Your task to perform on an android device: star an email in the gmail app Image 0: 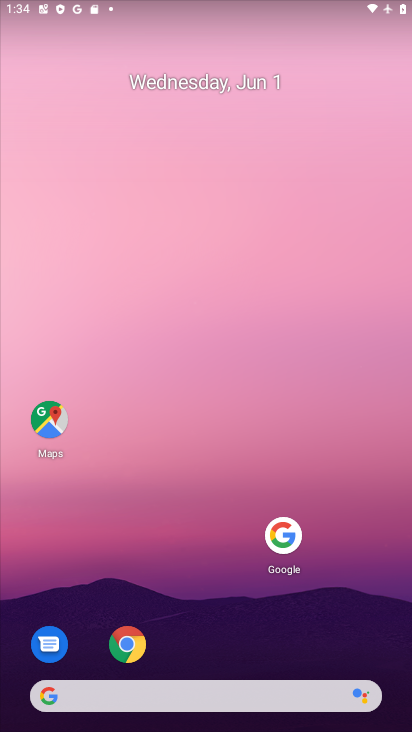
Step 0: press home button
Your task to perform on an android device: star an email in the gmail app Image 1: 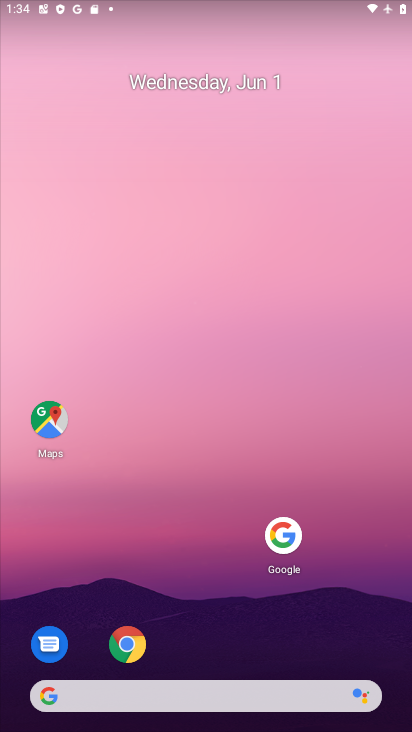
Step 1: drag from (130, 696) to (286, 188)
Your task to perform on an android device: star an email in the gmail app Image 2: 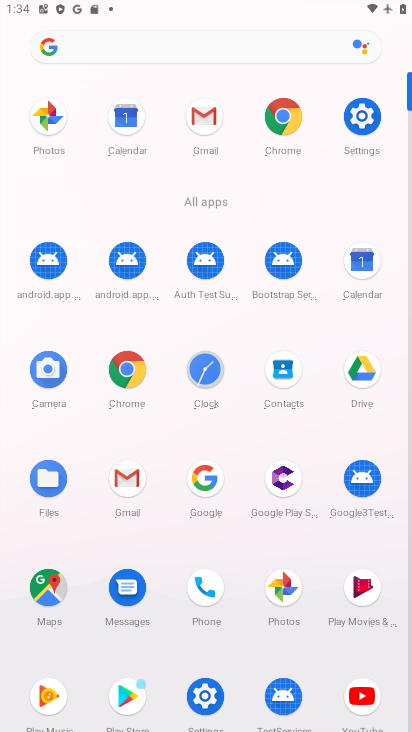
Step 2: click (200, 120)
Your task to perform on an android device: star an email in the gmail app Image 3: 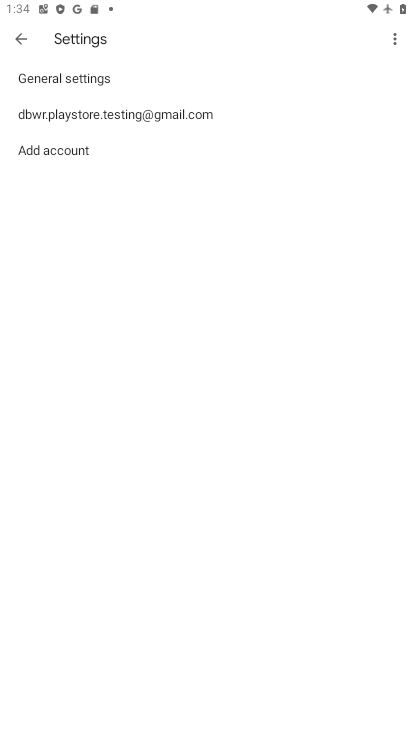
Step 3: click (23, 38)
Your task to perform on an android device: star an email in the gmail app Image 4: 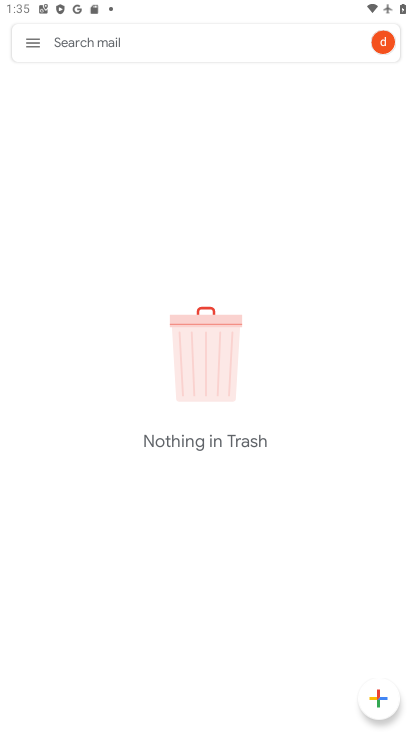
Step 4: click (32, 41)
Your task to perform on an android device: star an email in the gmail app Image 5: 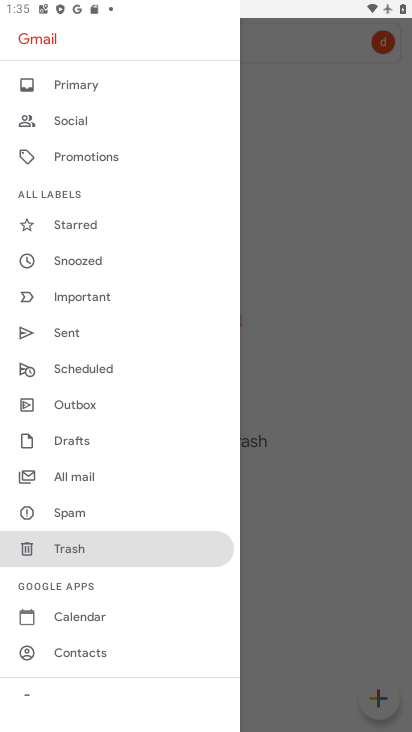
Step 5: click (84, 483)
Your task to perform on an android device: star an email in the gmail app Image 6: 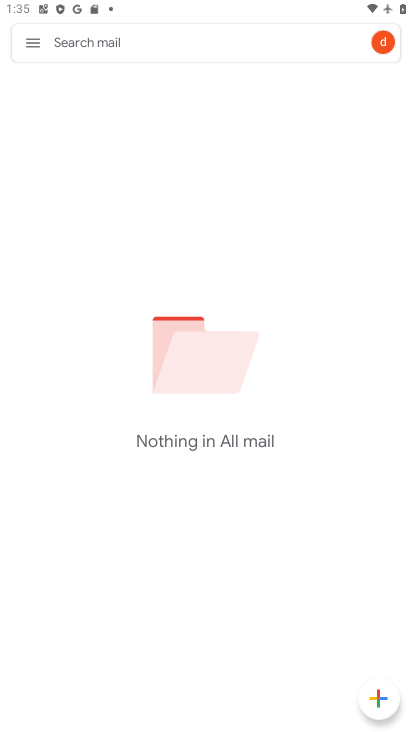
Step 6: task complete